Your task to perform on an android device: Go to wifi settings Image 0: 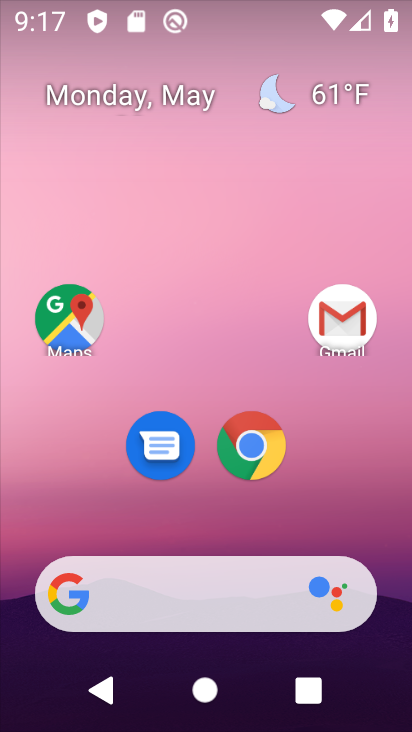
Step 0: drag from (366, 514) to (369, 189)
Your task to perform on an android device: Go to wifi settings Image 1: 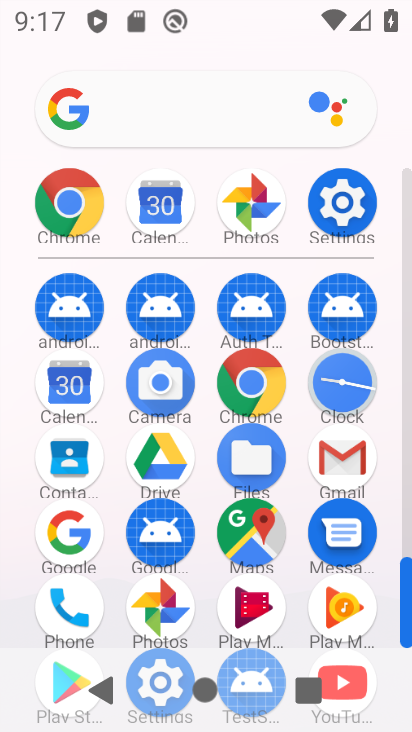
Step 1: click (338, 216)
Your task to perform on an android device: Go to wifi settings Image 2: 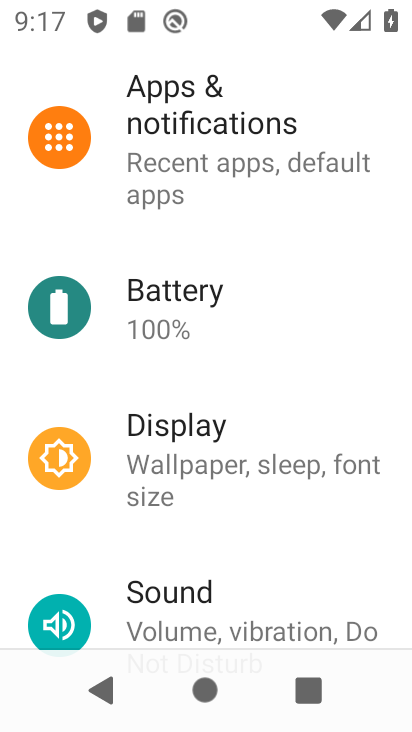
Step 2: drag from (358, 565) to (347, 320)
Your task to perform on an android device: Go to wifi settings Image 3: 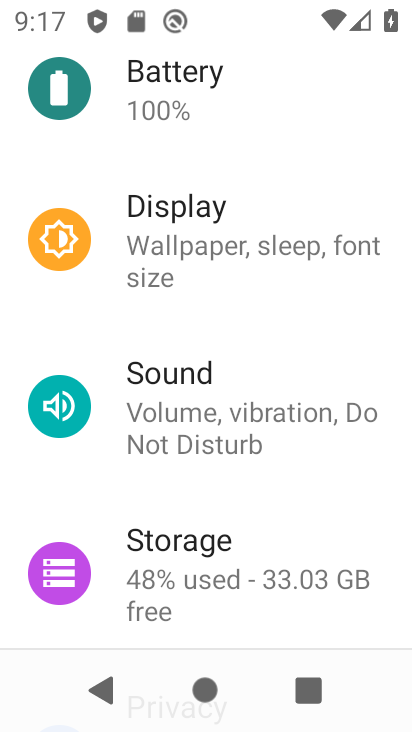
Step 3: drag from (346, 548) to (373, 316)
Your task to perform on an android device: Go to wifi settings Image 4: 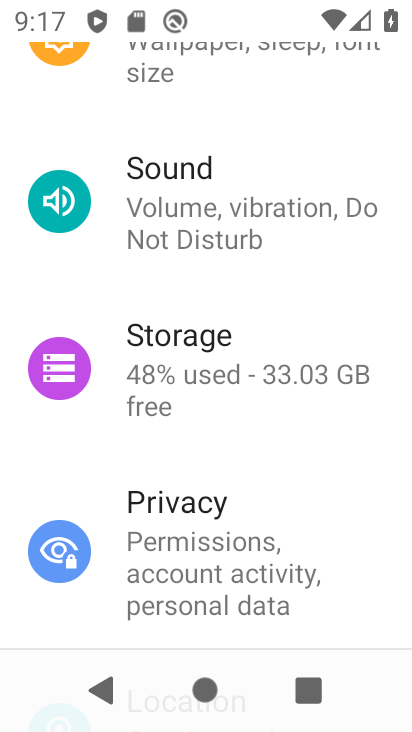
Step 4: drag from (336, 571) to (352, 288)
Your task to perform on an android device: Go to wifi settings Image 5: 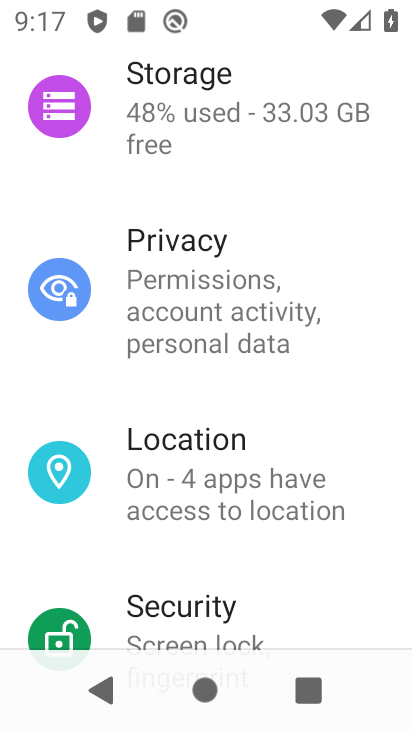
Step 5: drag from (357, 211) to (371, 392)
Your task to perform on an android device: Go to wifi settings Image 6: 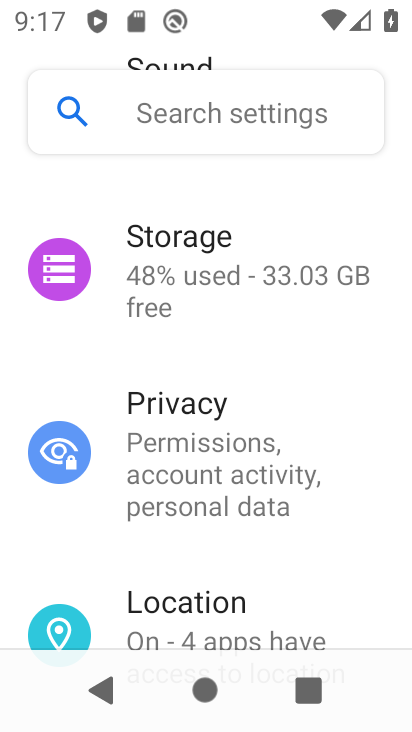
Step 6: drag from (362, 196) to (367, 372)
Your task to perform on an android device: Go to wifi settings Image 7: 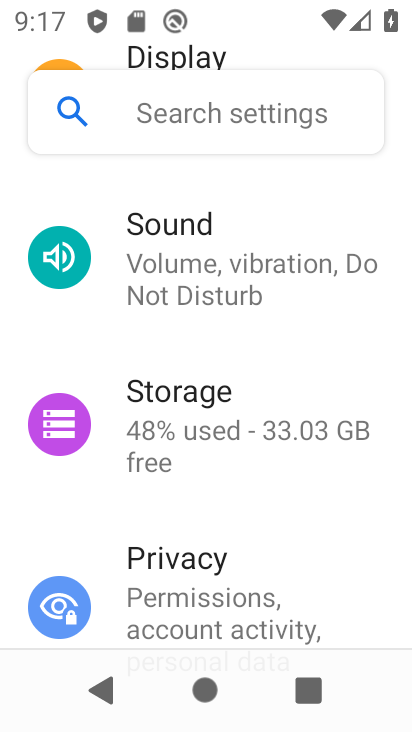
Step 7: drag from (370, 186) to (379, 309)
Your task to perform on an android device: Go to wifi settings Image 8: 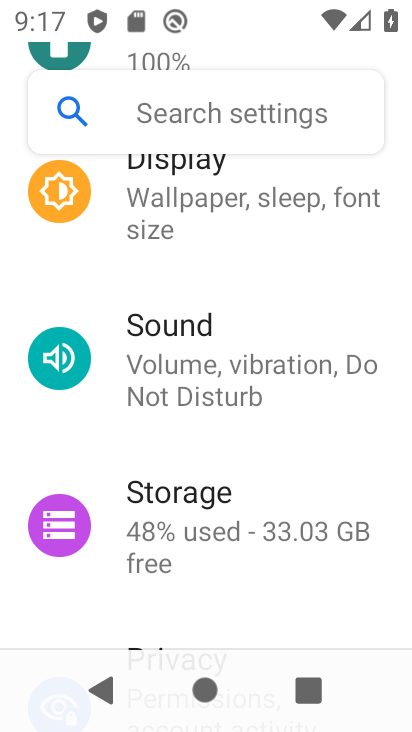
Step 8: drag from (381, 230) to (386, 335)
Your task to perform on an android device: Go to wifi settings Image 9: 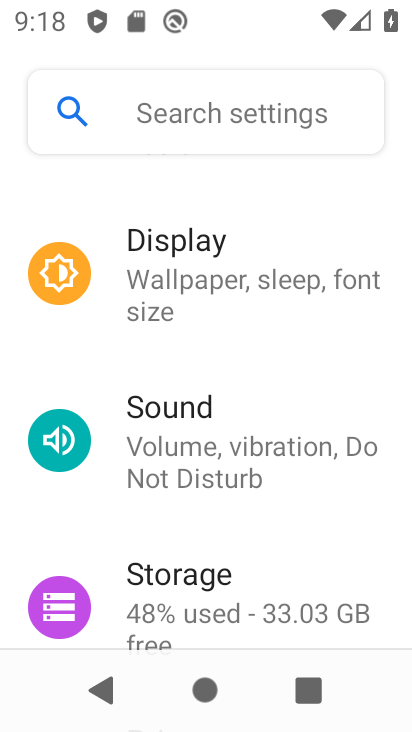
Step 9: drag from (375, 173) to (377, 312)
Your task to perform on an android device: Go to wifi settings Image 10: 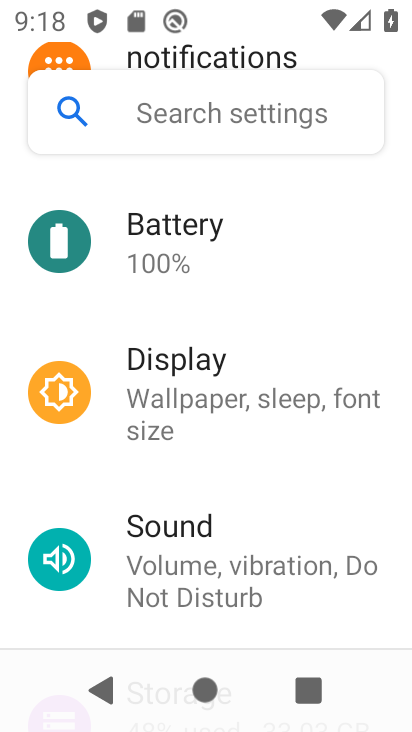
Step 10: drag from (364, 178) to (363, 319)
Your task to perform on an android device: Go to wifi settings Image 11: 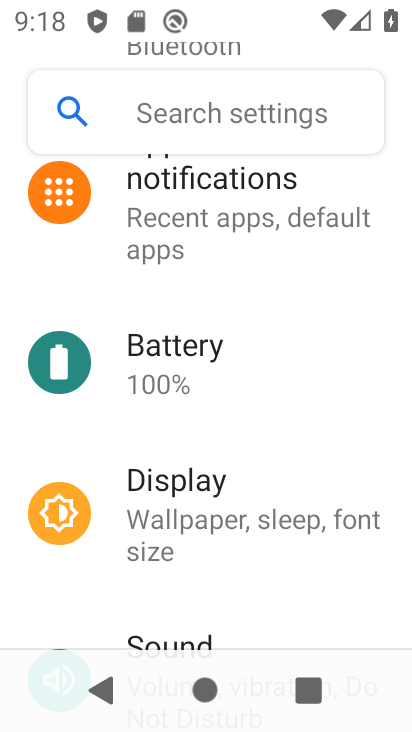
Step 11: drag from (365, 178) to (358, 329)
Your task to perform on an android device: Go to wifi settings Image 12: 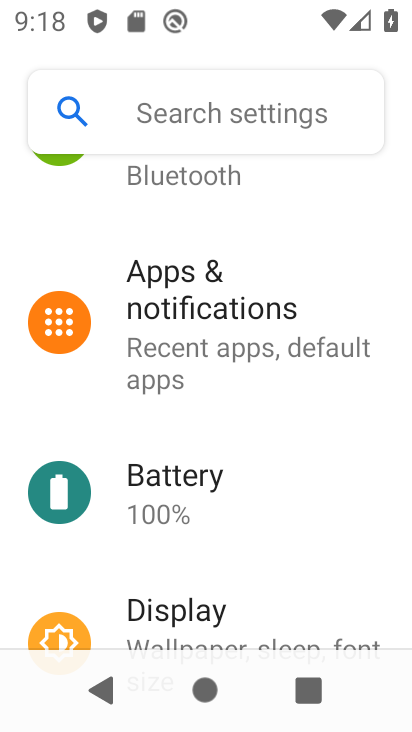
Step 12: drag from (335, 188) to (338, 335)
Your task to perform on an android device: Go to wifi settings Image 13: 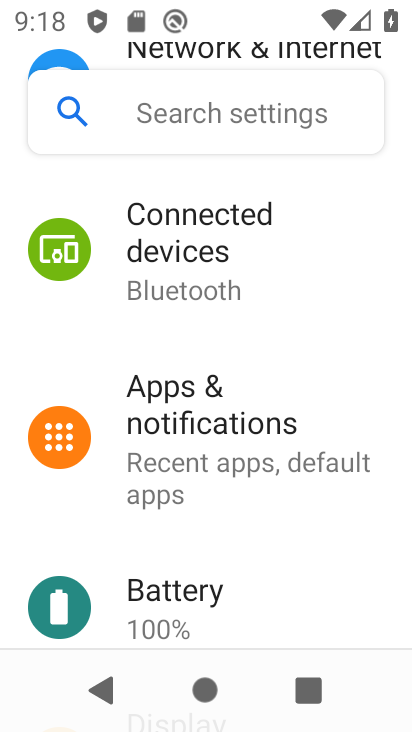
Step 13: drag from (340, 197) to (332, 327)
Your task to perform on an android device: Go to wifi settings Image 14: 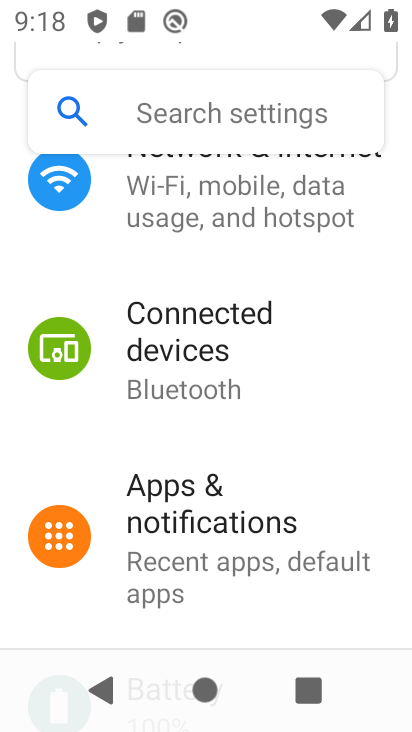
Step 14: drag from (362, 186) to (365, 349)
Your task to perform on an android device: Go to wifi settings Image 15: 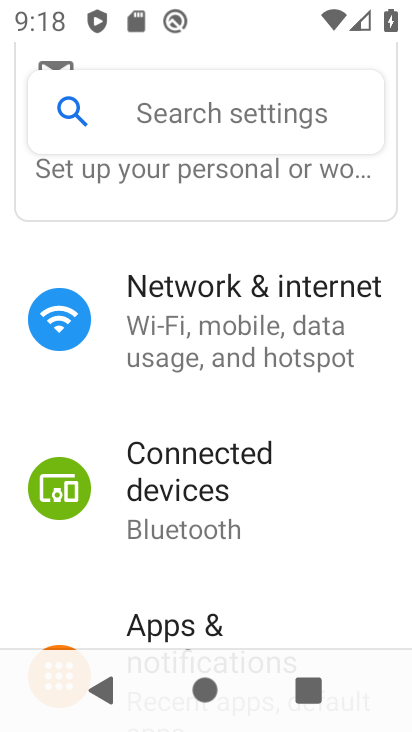
Step 15: drag from (372, 197) to (372, 275)
Your task to perform on an android device: Go to wifi settings Image 16: 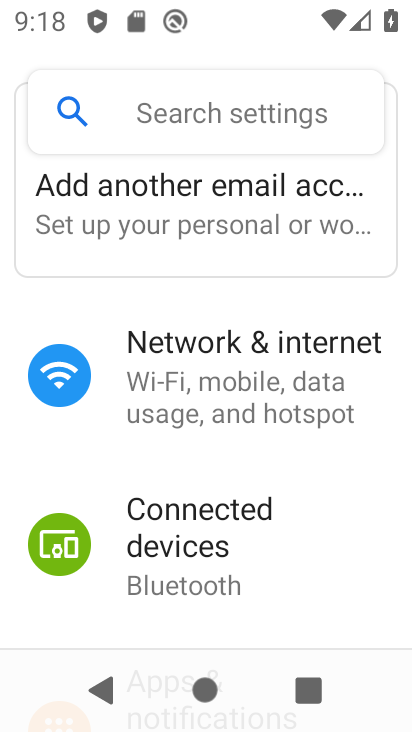
Step 16: click (337, 365)
Your task to perform on an android device: Go to wifi settings Image 17: 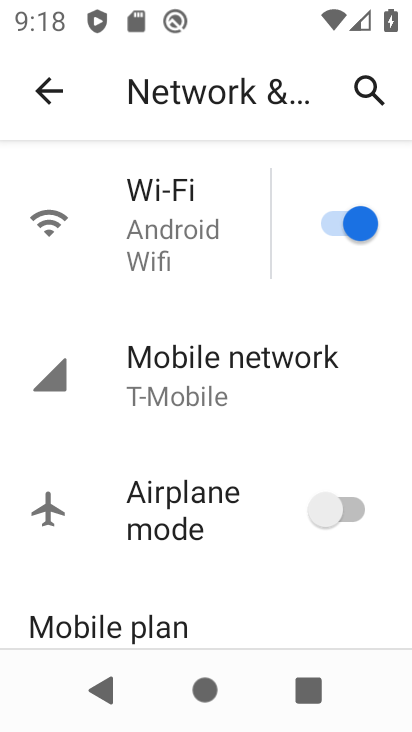
Step 17: click (180, 198)
Your task to perform on an android device: Go to wifi settings Image 18: 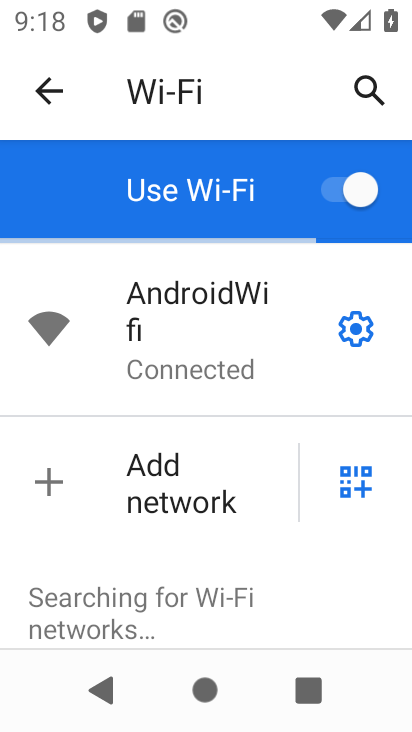
Step 18: task complete